Your task to perform on an android device: change the upload size in google photos Image 0: 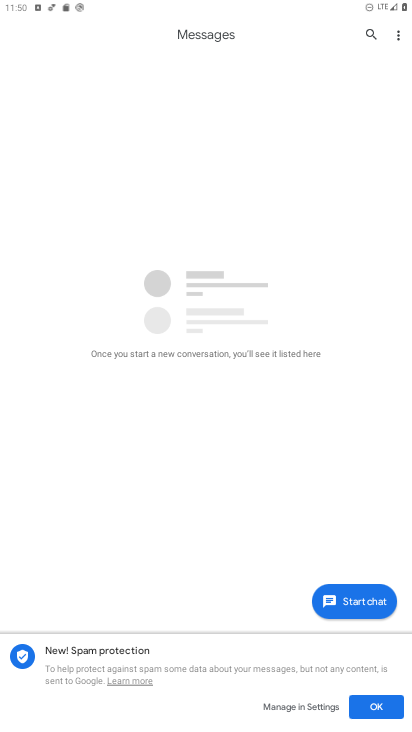
Step 0: press home button
Your task to perform on an android device: change the upload size in google photos Image 1: 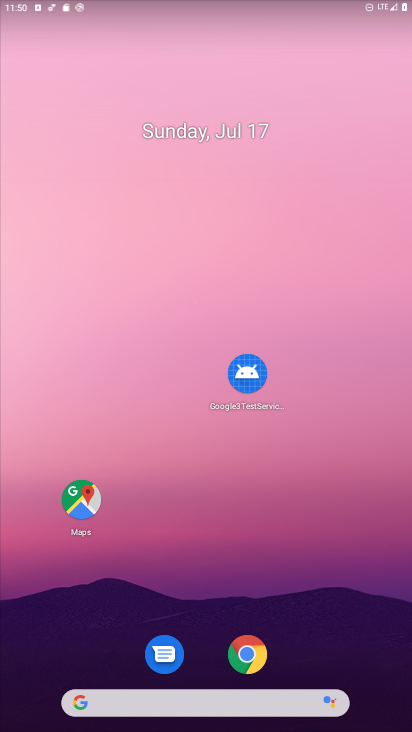
Step 1: drag from (201, 623) to (164, 295)
Your task to perform on an android device: change the upload size in google photos Image 2: 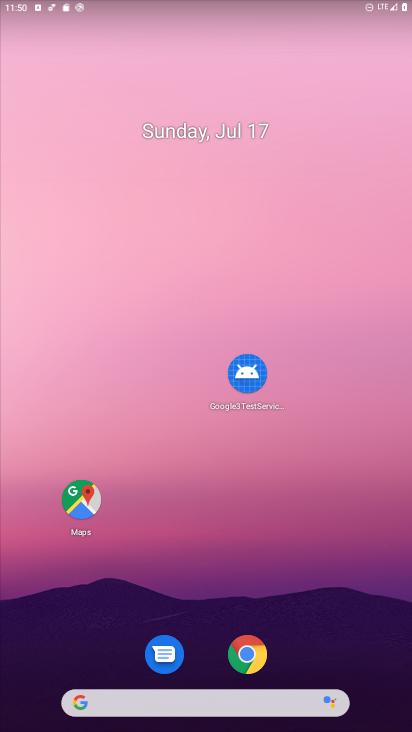
Step 2: drag from (124, 342) to (124, 159)
Your task to perform on an android device: change the upload size in google photos Image 3: 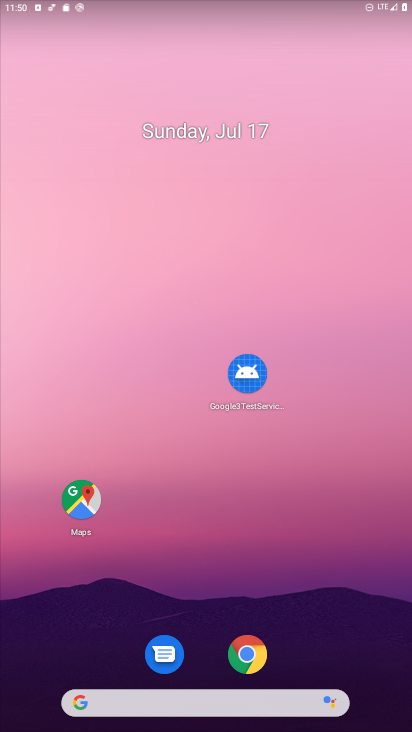
Step 3: drag from (208, 604) to (202, 48)
Your task to perform on an android device: change the upload size in google photos Image 4: 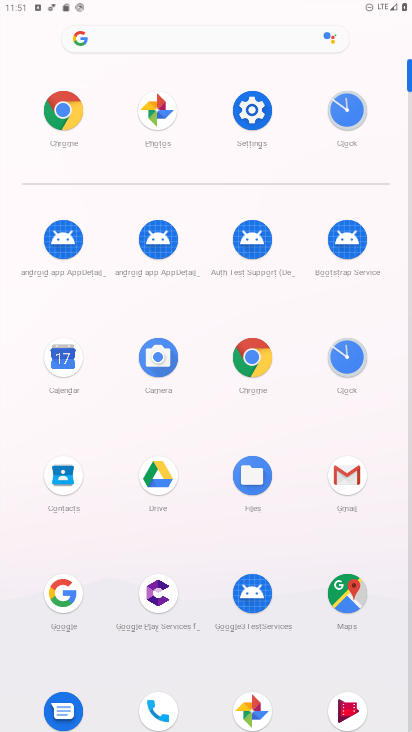
Step 4: click (162, 121)
Your task to perform on an android device: change the upload size in google photos Image 5: 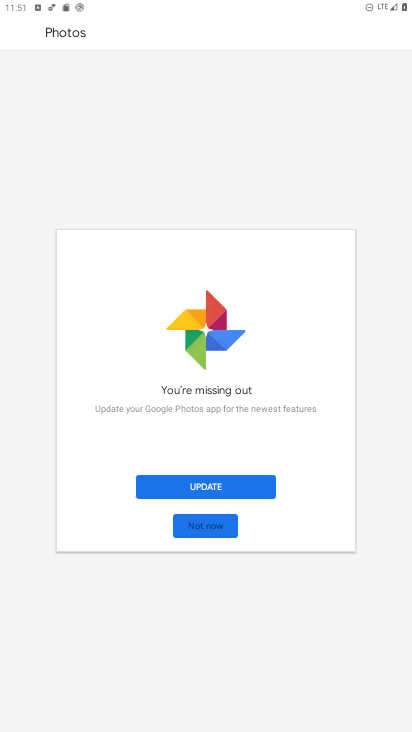
Step 5: click (203, 531)
Your task to perform on an android device: change the upload size in google photos Image 6: 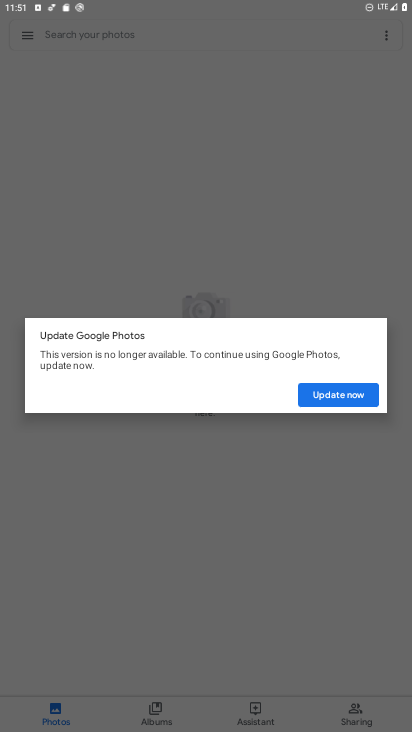
Step 6: click (350, 391)
Your task to perform on an android device: change the upload size in google photos Image 7: 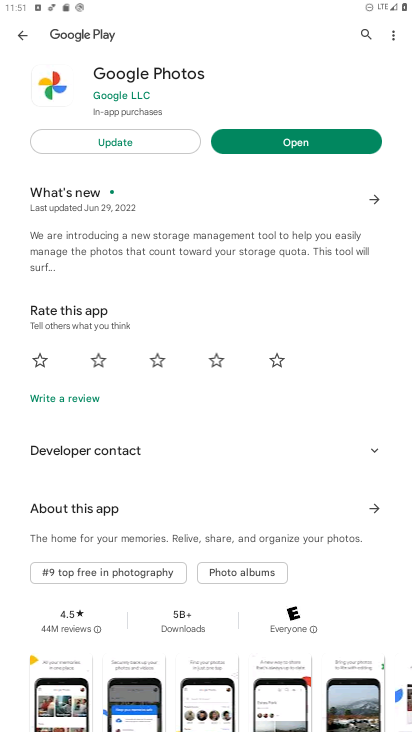
Step 7: click (305, 150)
Your task to perform on an android device: change the upload size in google photos Image 8: 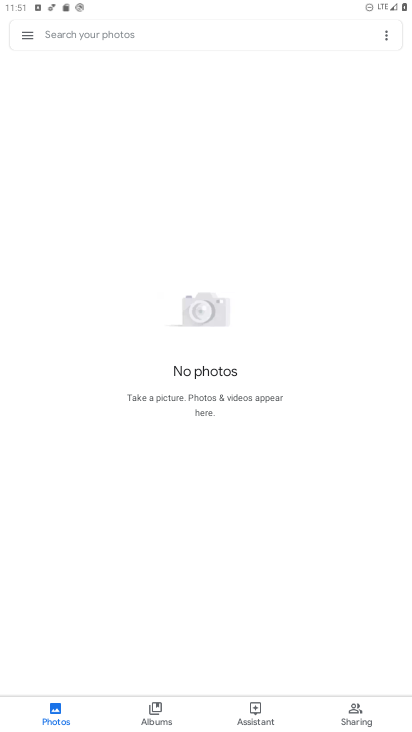
Step 8: click (34, 38)
Your task to perform on an android device: change the upload size in google photos Image 9: 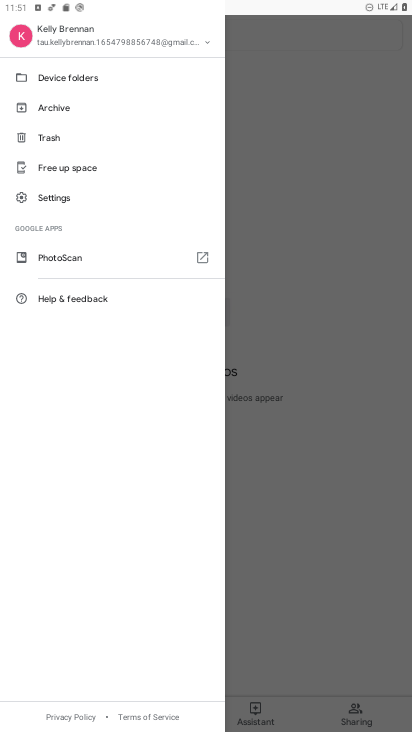
Step 9: click (57, 195)
Your task to perform on an android device: change the upload size in google photos Image 10: 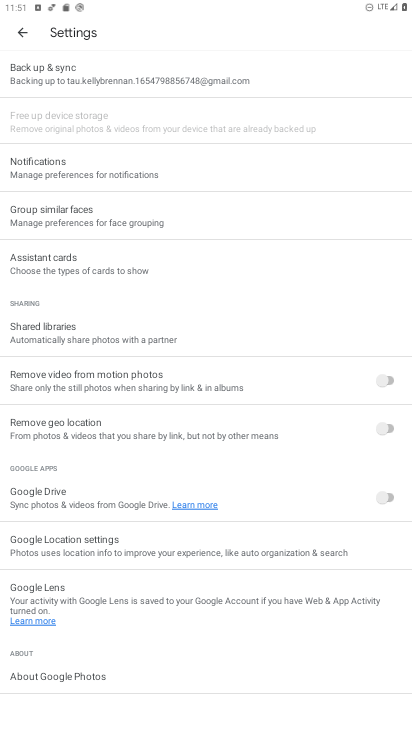
Step 10: click (108, 87)
Your task to perform on an android device: change the upload size in google photos Image 11: 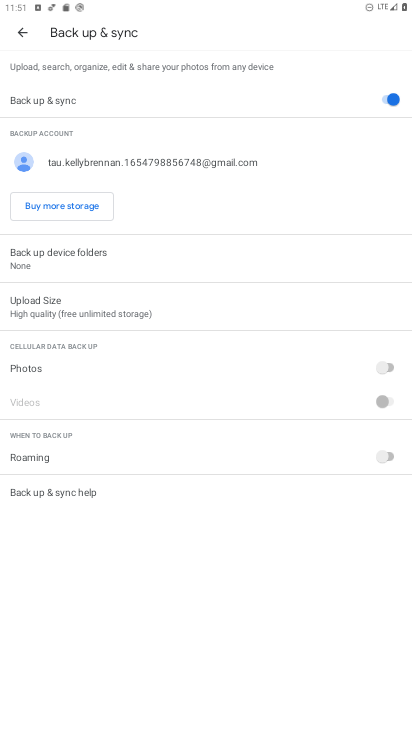
Step 11: click (87, 325)
Your task to perform on an android device: change the upload size in google photos Image 12: 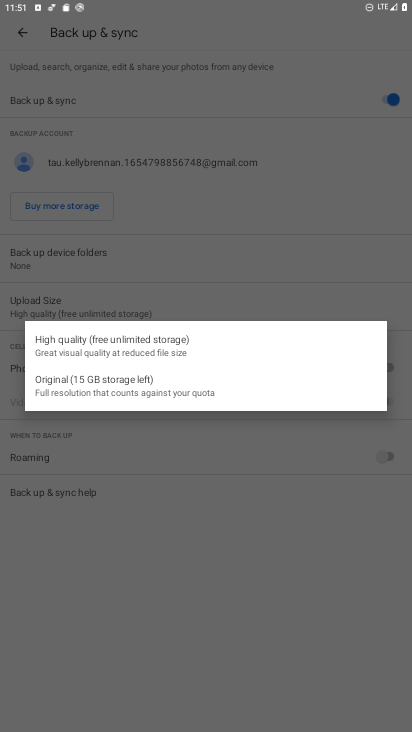
Step 12: click (118, 372)
Your task to perform on an android device: change the upload size in google photos Image 13: 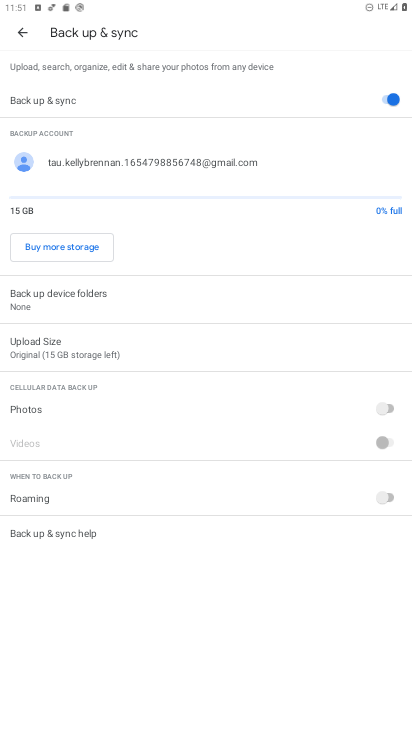
Step 13: task complete